Your task to perform on an android device: delete a single message in the gmail app Image 0: 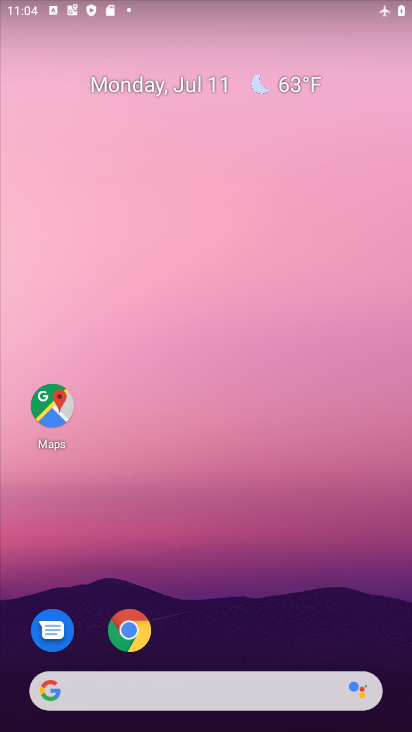
Step 0: drag from (332, 633) to (298, 223)
Your task to perform on an android device: delete a single message in the gmail app Image 1: 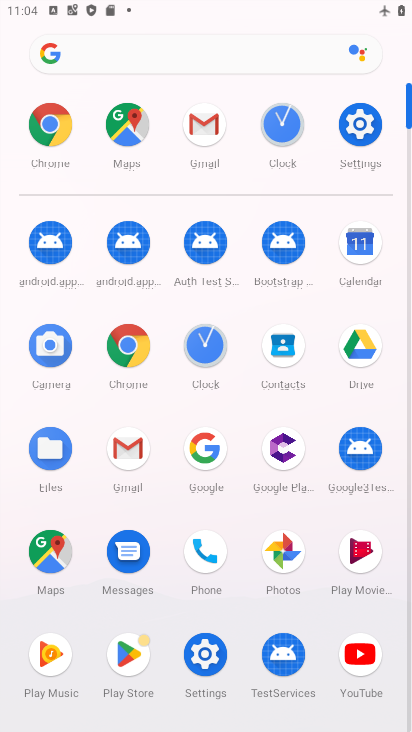
Step 1: click (123, 443)
Your task to perform on an android device: delete a single message in the gmail app Image 2: 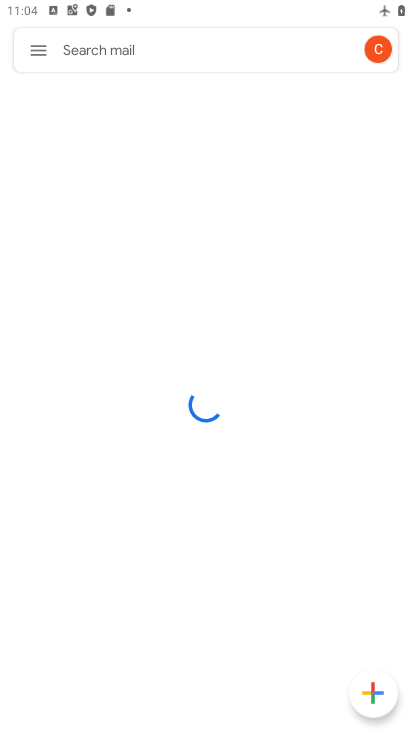
Step 2: click (37, 51)
Your task to perform on an android device: delete a single message in the gmail app Image 3: 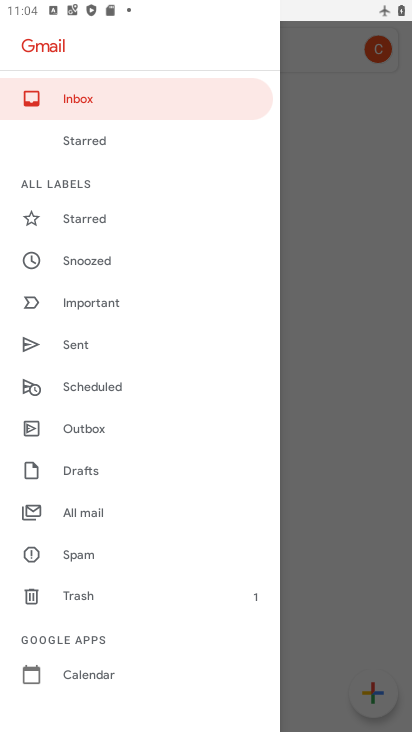
Step 3: click (88, 506)
Your task to perform on an android device: delete a single message in the gmail app Image 4: 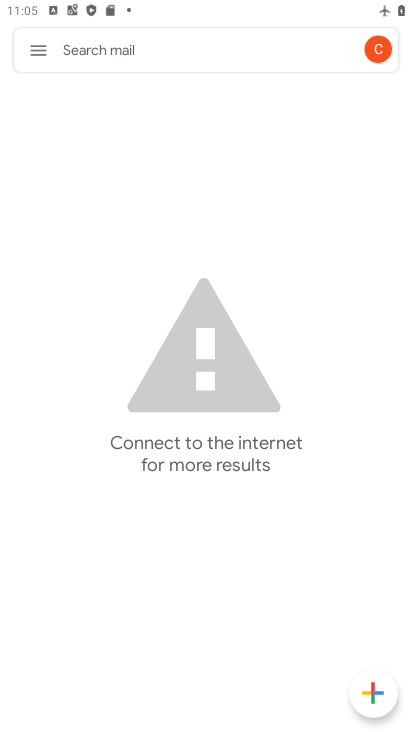
Step 4: task complete